Your task to perform on an android device: open app "Expedia: Hotels, Flights & Car" (install if not already installed) and enter user name: "crusader@outlook.com" and password: "Toryize" Image 0: 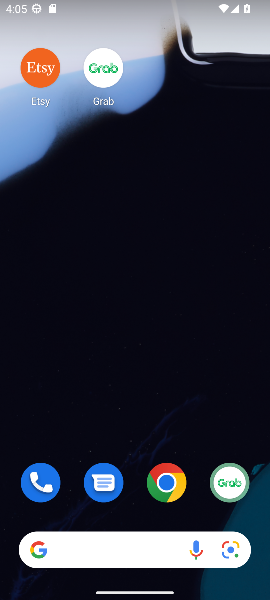
Step 0: drag from (142, 498) to (129, 98)
Your task to perform on an android device: open app "Expedia: Hotels, Flights & Car" (install if not already installed) and enter user name: "crusader@outlook.com" and password: "Toryize" Image 1: 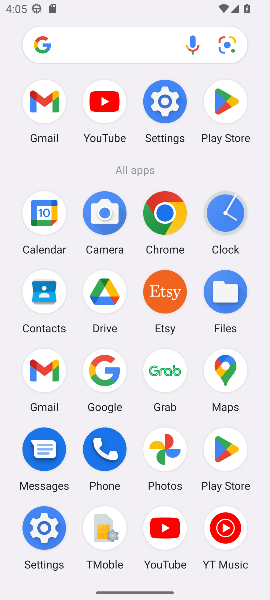
Step 1: click (226, 110)
Your task to perform on an android device: open app "Expedia: Hotels, Flights & Car" (install if not already installed) and enter user name: "crusader@outlook.com" and password: "Toryize" Image 2: 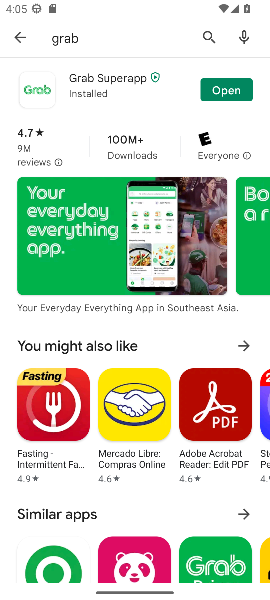
Step 2: click (204, 33)
Your task to perform on an android device: open app "Expedia: Hotels, Flights & Car" (install if not already installed) and enter user name: "crusader@outlook.com" and password: "Toryize" Image 3: 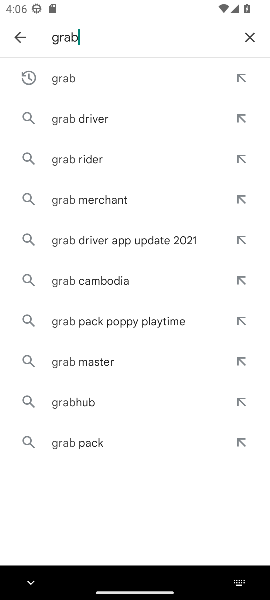
Step 3: click (248, 31)
Your task to perform on an android device: open app "Expedia: Hotels, Flights & Car" (install if not already installed) and enter user name: "crusader@outlook.com" and password: "Toryize" Image 4: 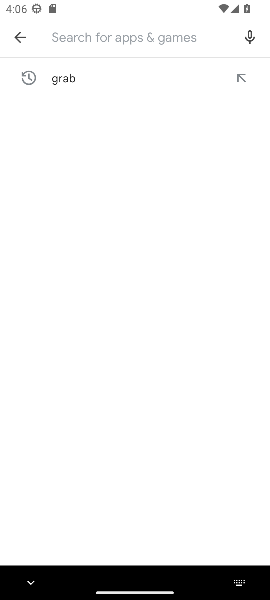
Step 4: click (136, 45)
Your task to perform on an android device: open app "Expedia: Hotels, Flights & Car" (install if not already installed) and enter user name: "crusader@outlook.com" and password: "Toryize" Image 5: 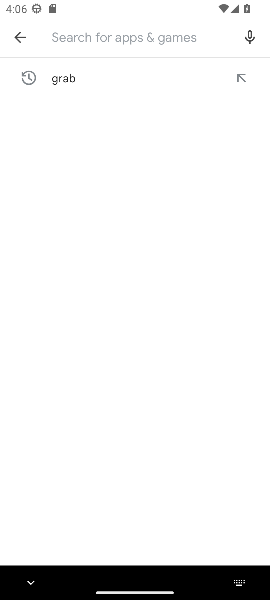
Step 5: type "Expedia: Hotels, Flights & Car"
Your task to perform on an android device: open app "Expedia: Hotels, Flights & Car" (install if not already installed) and enter user name: "crusader@outlook.com" and password: "Toryize" Image 6: 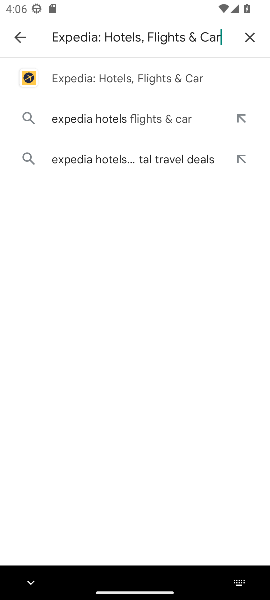
Step 6: click (113, 78)
Your task to perform on an android device: open app "Expedia: Hotels, Flights & Car" (install if not already installed) and enter user name: "crusader@outlook.com" and password: "Toryize" Image 7: 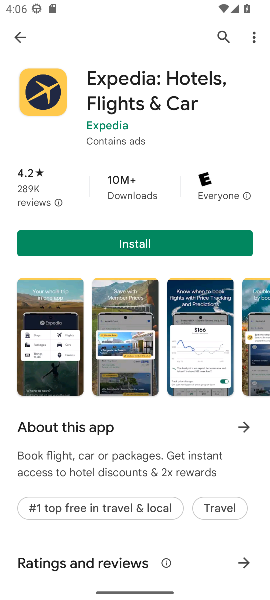
Step 7: click (131, 245)
Your task to perform on an android device: open app "Expedia: Hotels, Flights & Car" (install if not already installed) and enter user name: "crusader@outlook.com" and password: "Toryize" Image 8: 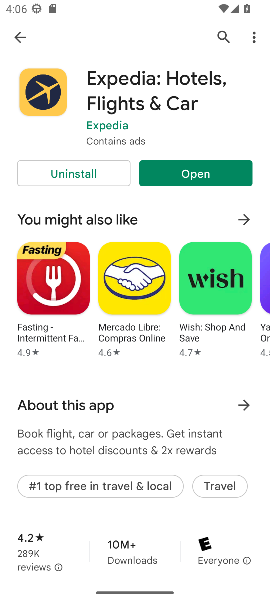
Step 8: click (204, 176)
Your task to perform on an android device: open app "Expedia: Hotels, Flights & Car" (install if not already installed) and enter user name: "crusader@outlook.com" and password: "Toryize" Image 9: 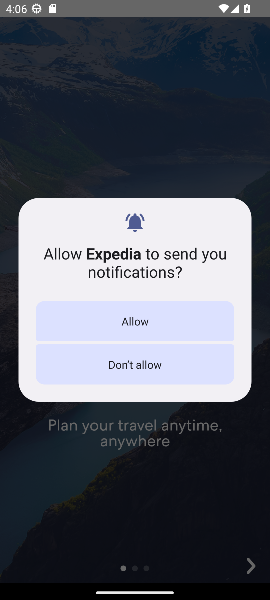
Step 9: click (136, 320)
Your task to perform on an android device: open app "Expedia: Hotels, Flights & Car" (install if not already installed) and enter user name: "crusader@outlook.com" and password: "Toryize" Image 10: 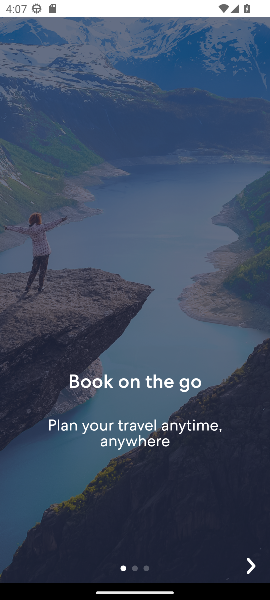
Step 10: click (248, 562)
Your task to perform on an android device: open app "Expedia: Hotels, Flights & Car" (install if not already installed) and enter user name: "crusader@outlook.com" and password: "Toryize" Image 11: 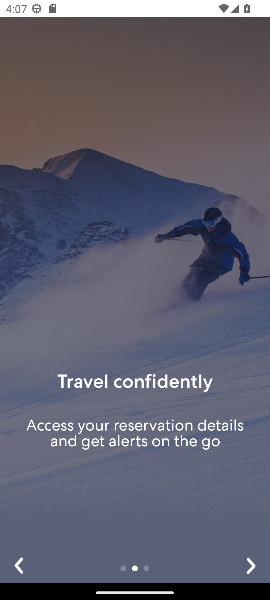
Step 11: click (249, 568)
Your task to perform on an android device: open app "Expedia: Hotels, Flights & Car" (install if not already installed) and enter user name: "crusader@outlook.com" and password: "Toryize" Image 12: 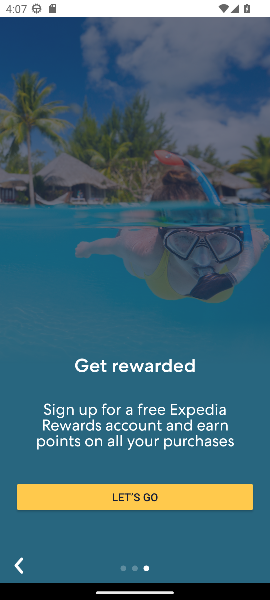
Step 12: click (250, 563)
Your task to perform on an android device: open app "Expedia: Hotels, Flights & Car" (install if not already installed) and enter user name: "crusader@outlook.com" and password: "Toryize" Image 13: 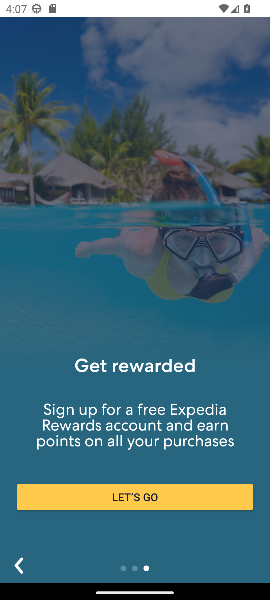
Step 13: click (145, 499)
Your task to perform on an android device: open app "Expedia: Hotels, Flights & Car" (install if not already installed) and enter user name: "crusader@outlook.com" and password: "Toryize" Image 14: 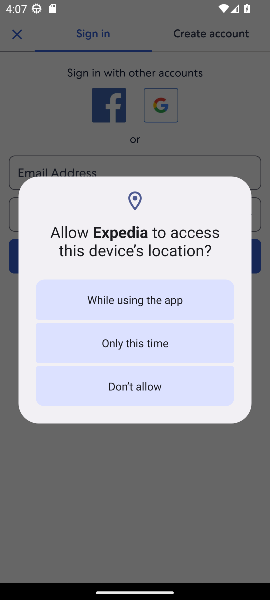
Step 14: click (158, 385)
Your task to perform on an android device: open app "Expedia: Hotels, Flights & Car" (install if not already installed) and enter user name: "crusader@outlook.com" and password: "Toryize" Image 15: 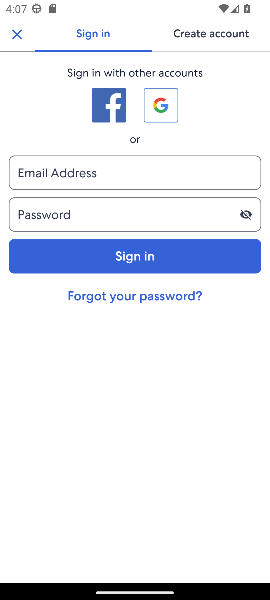
Step 15: click (167, 178)
Your task to perform on an android device: open app "Expedia: Hotels, Flights & Car" (install if not already installed) and enter user name: "crusader@outlook.com" and password: "Toryize" Image 16: 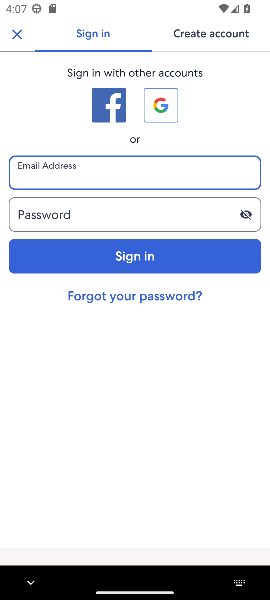
Step 16: type "crusader@outlook.com"
Your task to perform on an android device: open app "Expedia: Hotels, Flights & Car" (install if not already installed) and enter user name: "crusader@outlook.com" and password: "Toryize" Image 17: 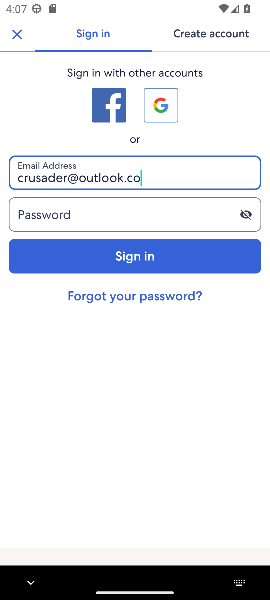
Step 17: type ""
Your task to perform on an android device: open app "Expedia: Hotels, Flights & Car" (install if not already installed) and enter user name: "crusader@outlook.com" and password: "Toryize" Image 18: 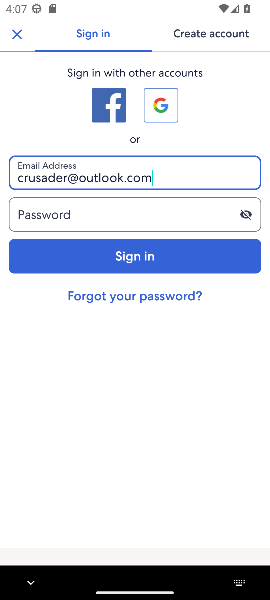
Step 18: click (110, 212)
Your task to perform on an android device: open app "Expedia: Hotels, Flights & Car" (install if not already installed) and enter user name: "crusader@outlook.com" and password: "Toryize" Image 19: 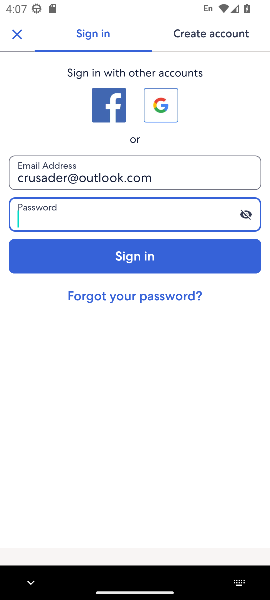
Step 19: type "Toryize"
Your task to perform on an android device: open app "Expedia: Hotels, Flights & Car" (install if not already installed) and enter user name: "crusader@outlook.com" and password: "Toryize" Image 20: 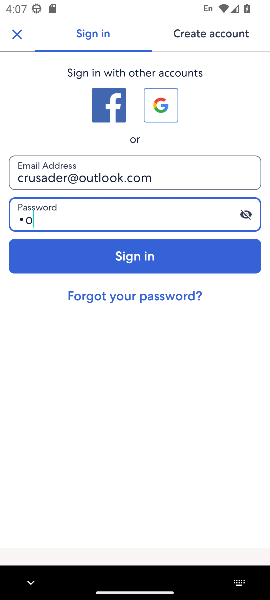
Step 20: type ""
Your task to perform on an android device: open app "Expedia: Hotels, Flights & Car" (install if not already installed) and enter user name: "crusader@outlook.com" and password: "Toryize" Image 21: 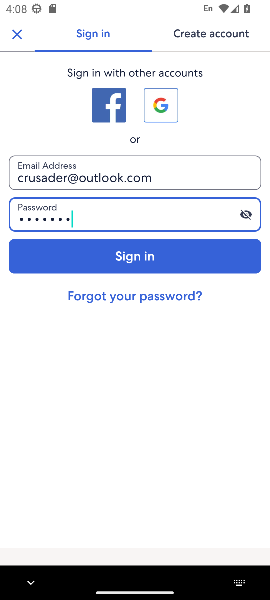
Step 21: task complete